Your task to perform on an android device: show emergency info Image 0: 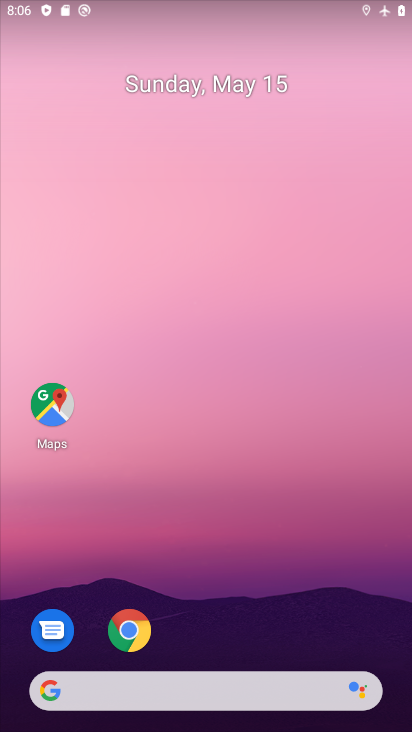
Step 0: drag from (238, 594) to (315, 55)
Your task to perform on an android device: show emergency info Image 1: 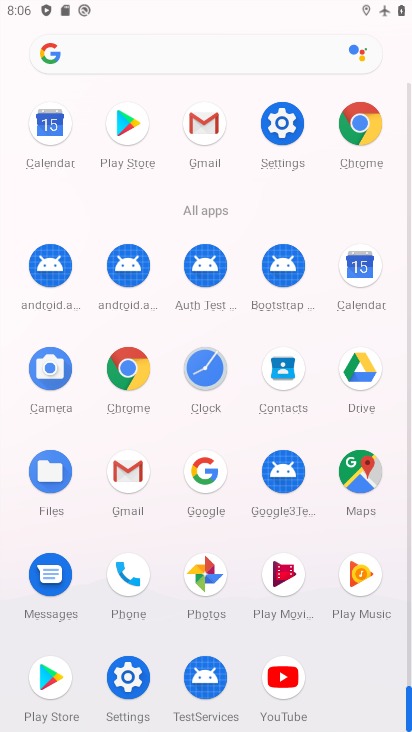
Step 1: click (136, 672)
Your task to perform on an android device: show emergency info Image 2: 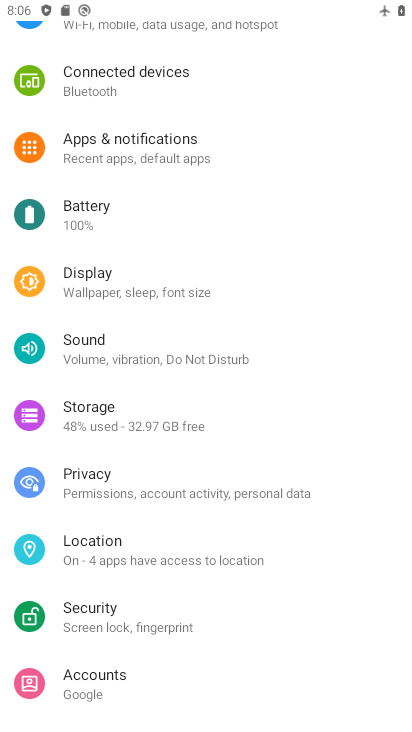
Step 2: drag from (167, 587) to (295, 26)
Your task to perform on an android device: show emergency info Image 3: 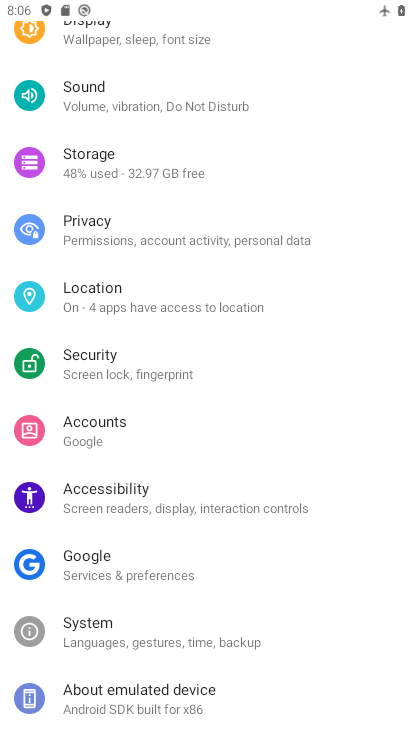
Step 3: click (164, 697)
Your task to perform on an android device: show emergency info Image 4: 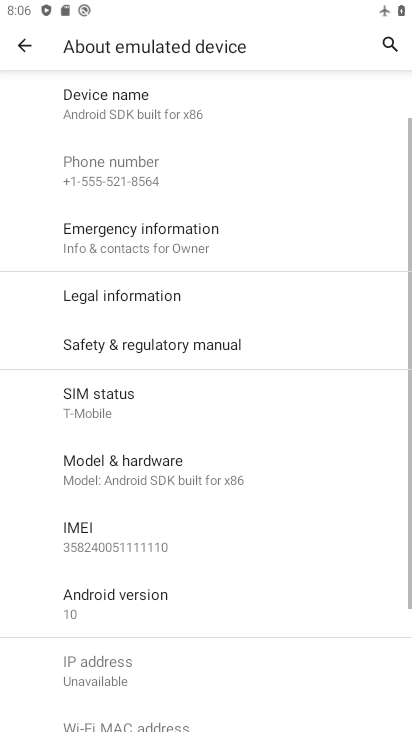
Step 4: click (173, 241)
Your task to perform on an android device: show emergency info Image 5: 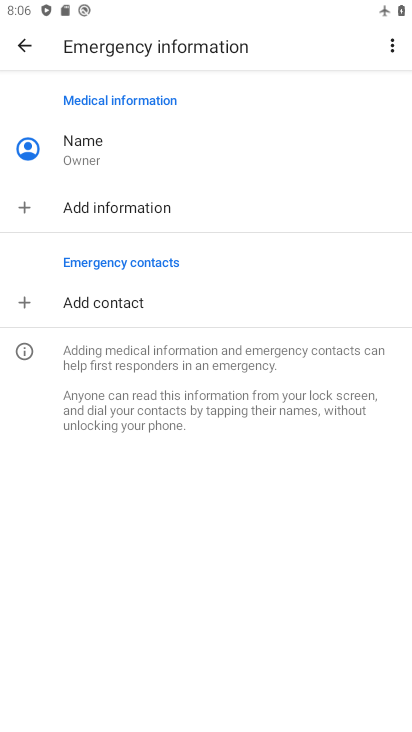
Step 5: task complete